Your task to perform on an android device: Install the Instagram app Image 0: 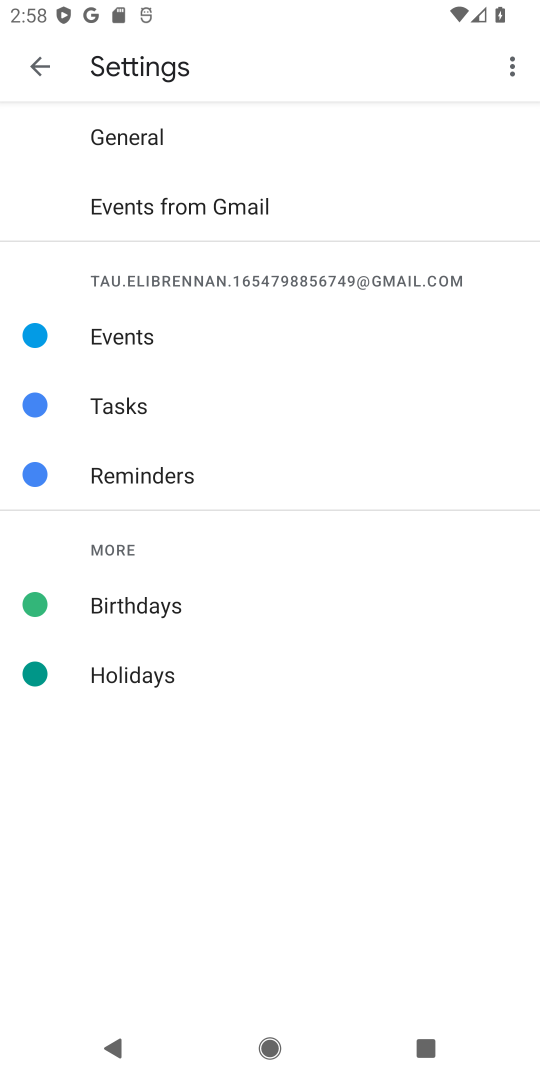
Step 0: press home button
Your task to perform on an android device: Install the Instagram app Image 1: 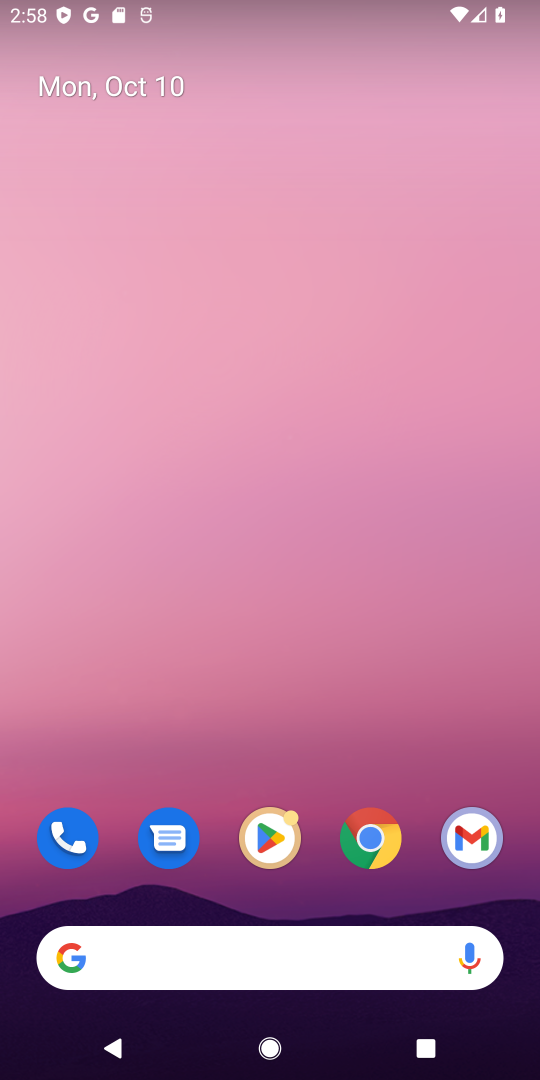
Step 1: click (271, 821)
Your task to perform on an android device: Install the Instagram app Image 2: 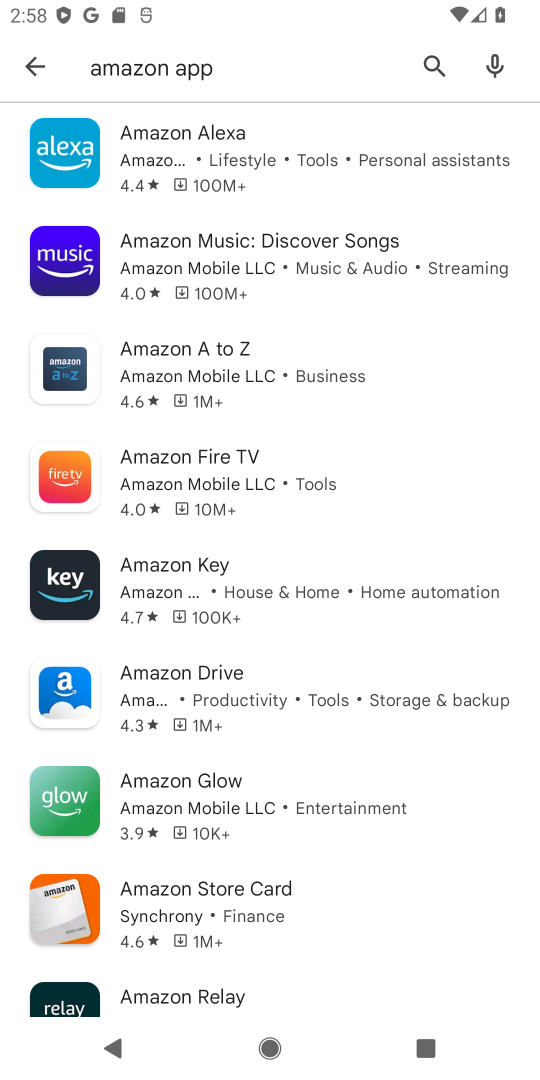
Step 2: click (448, 71)
Your task to perform on an android device: Install the Instagram app Image 3: 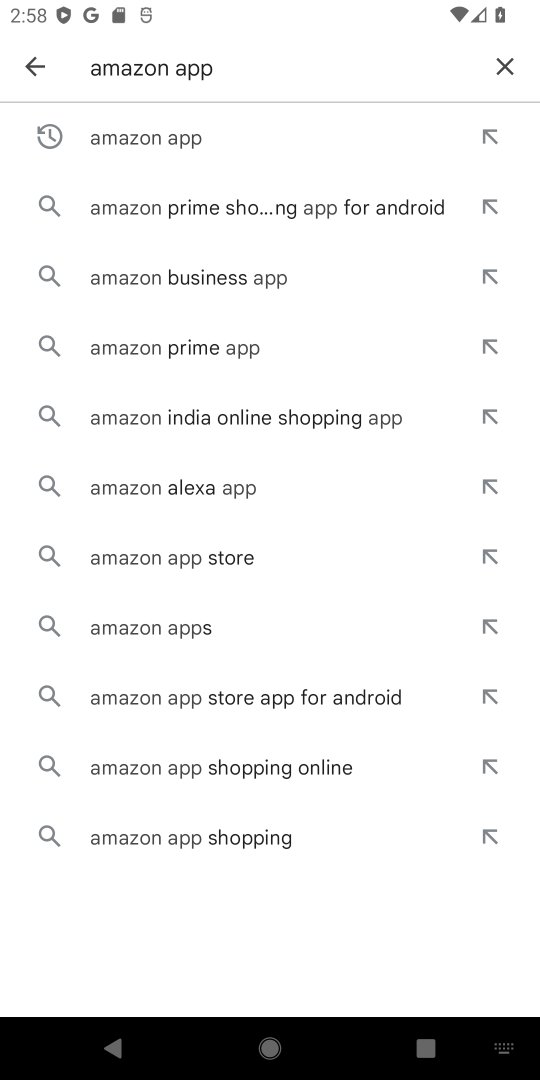
Step 3: click (503, 50)
Your task to perform on an android device: Install the Instagram app Image 4: 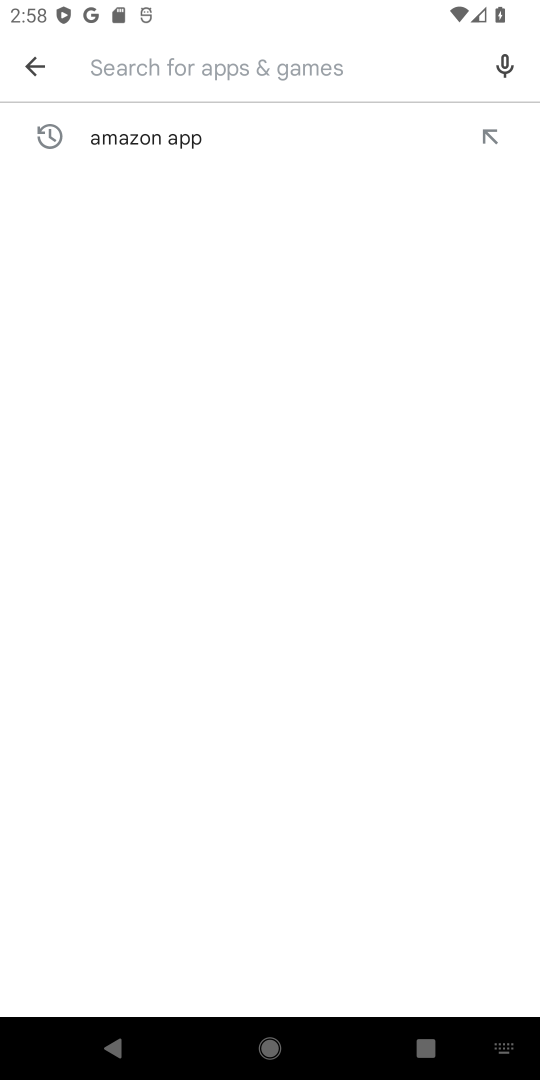
Step 4: type "Instagram"
Your task to perform on an android device: Install the Instagram app Image 5: 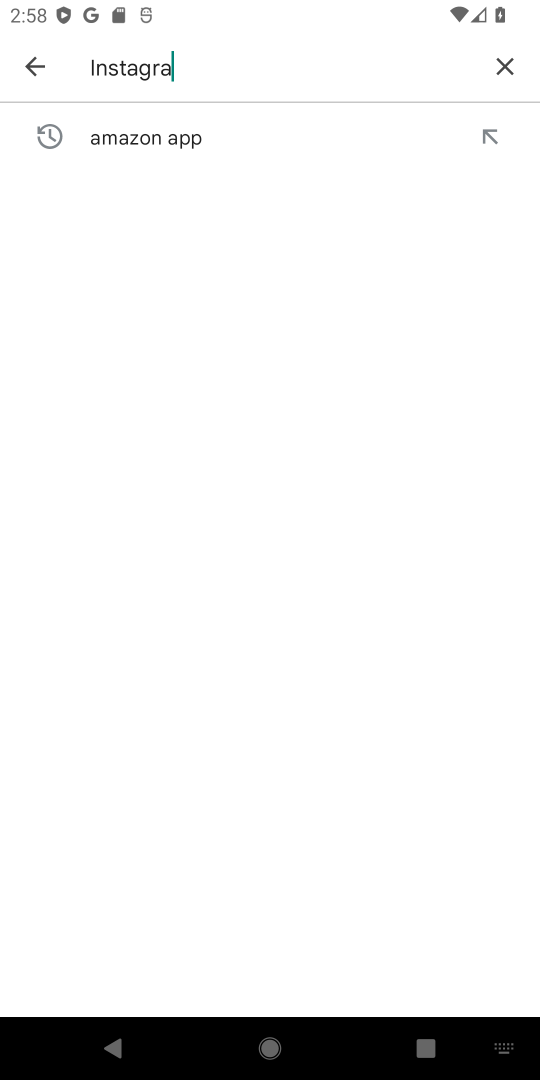
Step 5: type ""
Your task to perform on an android device: Install the Instagram app Image 6: 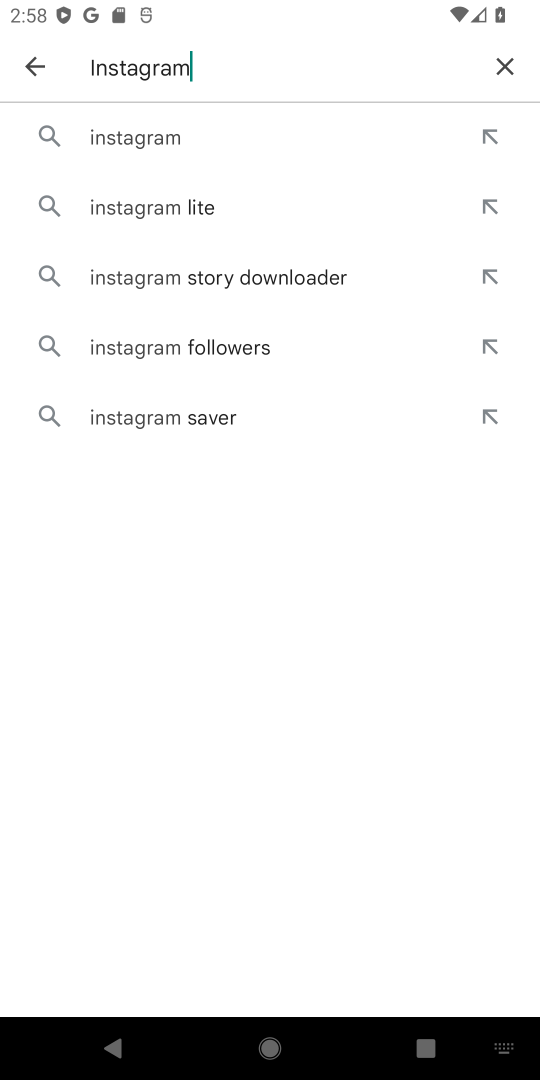
Step 6: click (107, 133)
Your task to perform on an android device: Install the Instagram app Image 7: 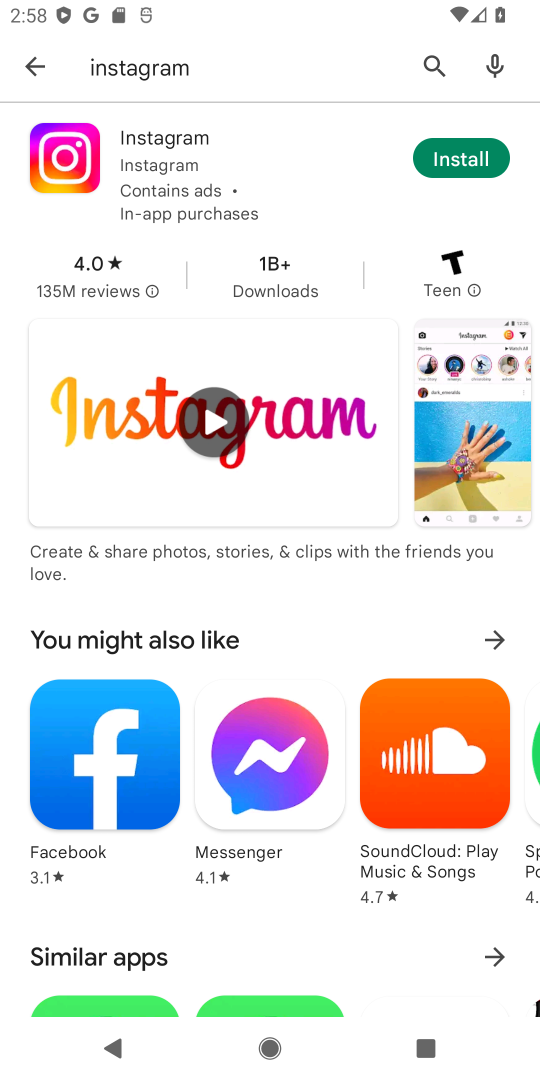
Step 7: click (435, 155)
Your task to perform on an android device: Install the Instagram app Image 8: 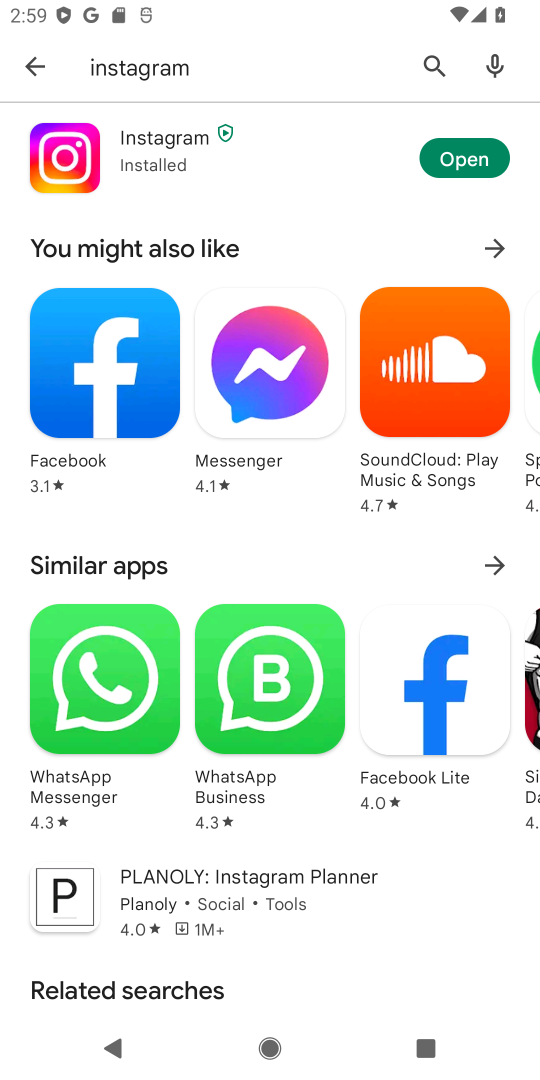
Step 8: task complete